Your task to perform on an android device: turn on translation in the chrome app Image 0: 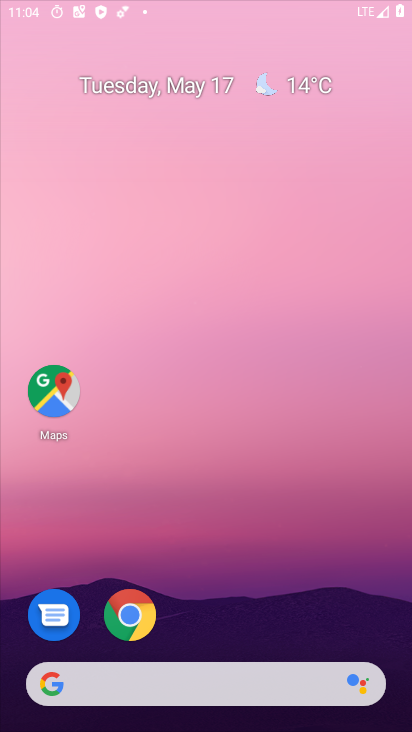
Step 0: press home button
Your task to perform on an android device: turn on translation in the chrome app Image 1: 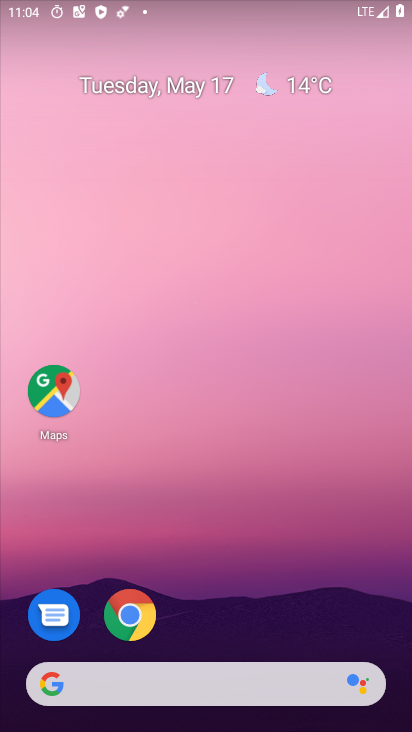
Step 1: click (132, 619)
Your task to perform on an android device: turn on translation in the chrome app Image 2: 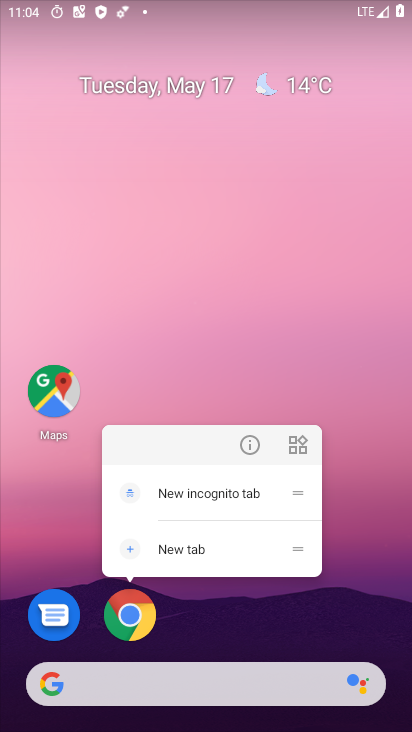
Step 2: click (143, 618)
Your task to perform on an android device: turn on translation in the chrome app Image 3: 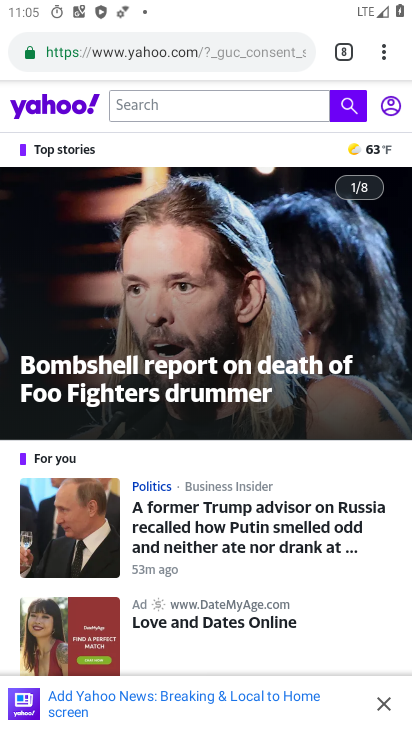
Step 3: drag from (384, 55) to (257, 625)
Your task to perform on an android device: turn on translation in the chrome app Image 4: 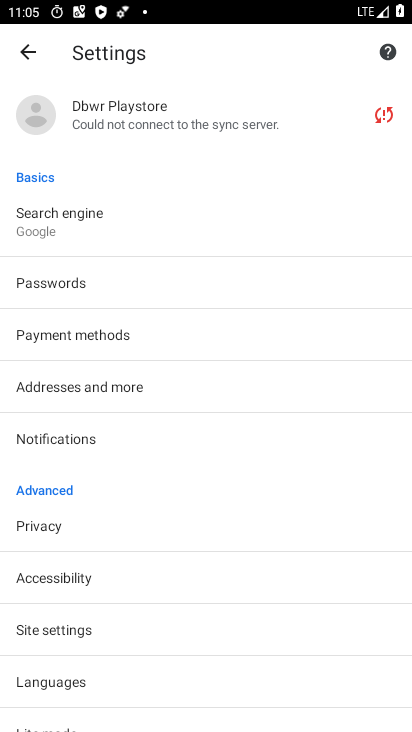
Step 4: click (105, 689)
Your task to perform on an android device: turn on translation in the chrome app Image 5: 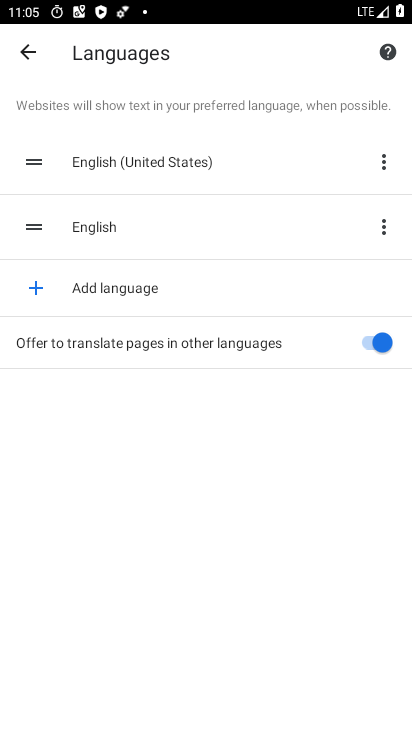
Step 5: task complete